Your task to perform on an android device: open a bookmark in the chrome app Image 0: 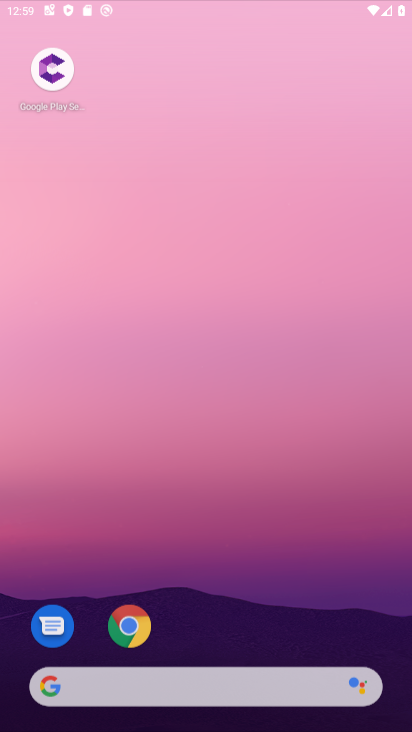
Step 0: press back button
Your task to perform on an android device: open a bookmark in the chrome app Image 1: 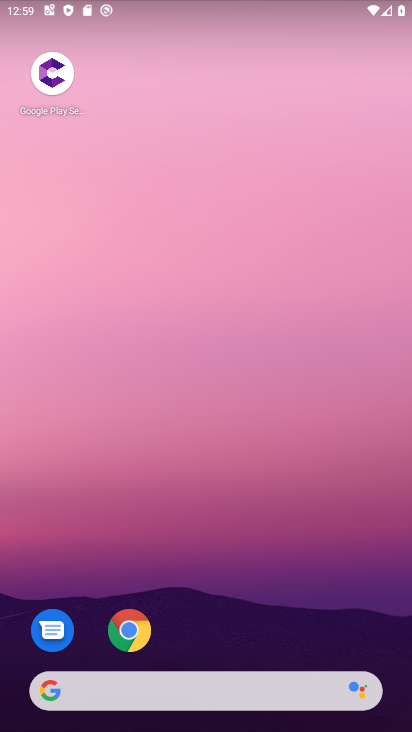
Step 1: drag from (231, 572) to (228, 209)
Your task to perform on an android device: open a bookmark in the chrome app Image 2: 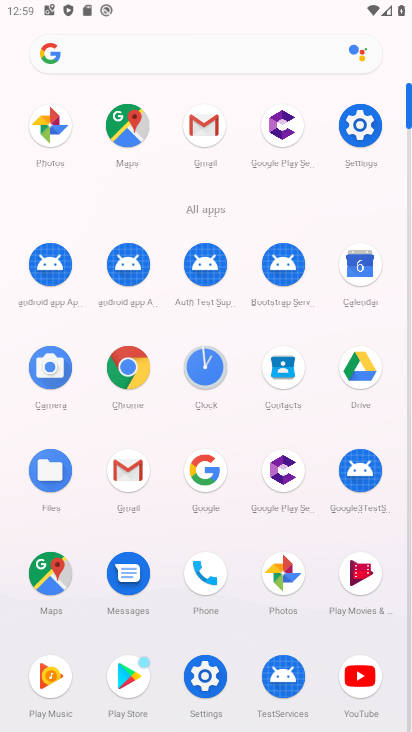
Step 2: click (124, 367)
Your task to perform on an android device: open a bookmark in the chrome app Image 3: 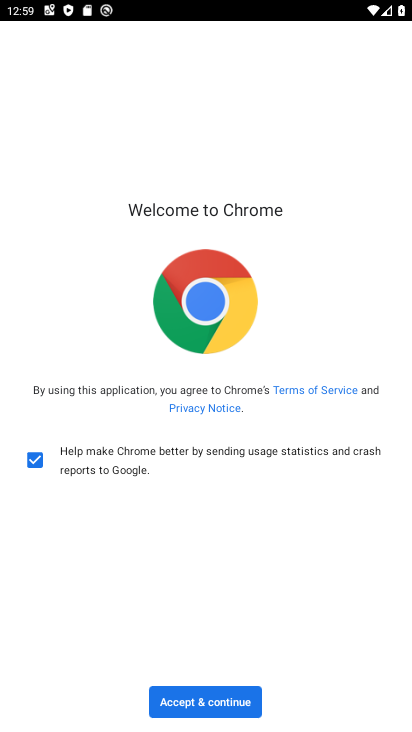
Step 3: click (224, 707)
Your task to perform on an android device: open a bookmark in the chrome app Image 4: 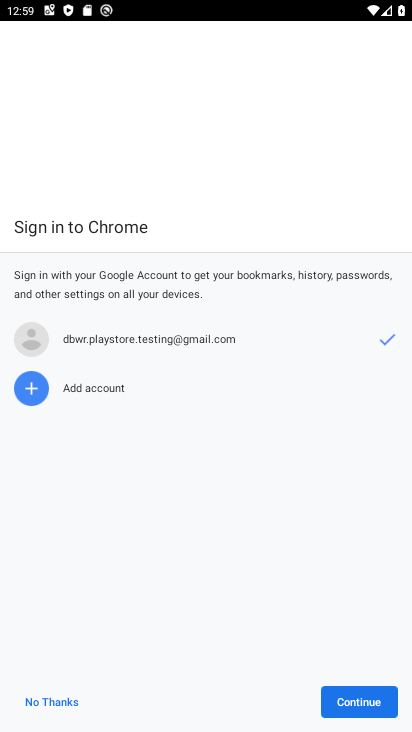
Step 4: click (354, 701)
Your task to perform on an android device: open a bookmark in the chrome app Image 5: 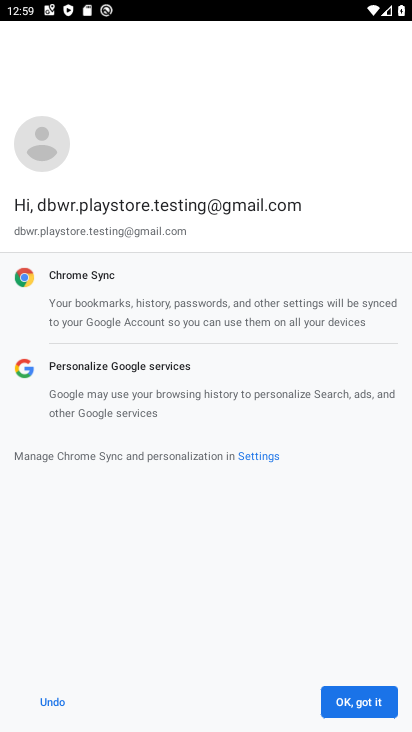
Step 5: click (372, 700)
Your task to perform on an android device: open a bookmark in the chrome app Image 6: 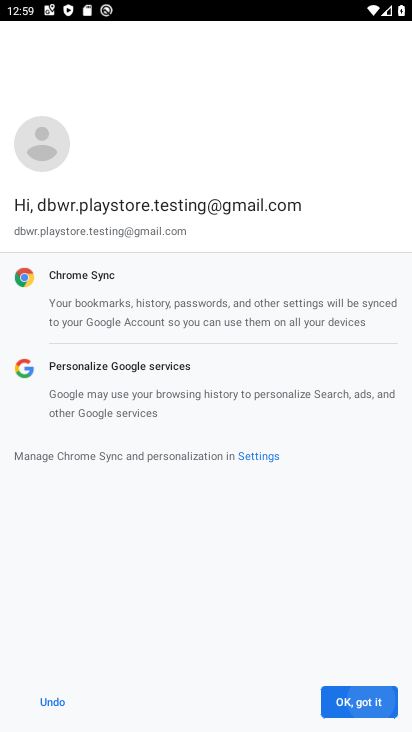
Step 6: click (372, 700)
Your task to perform on an android device: open a bookmark in the chrome app Image 7: 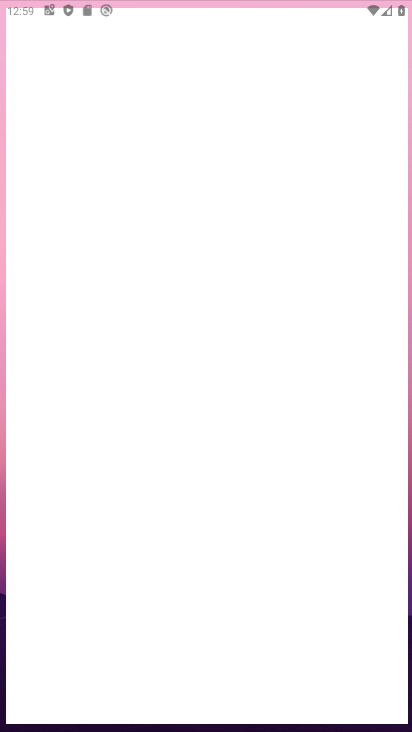
Step 7: click (371, 700)
Your task to perform on an android device: open a bookmark in the chrome app Image 8: 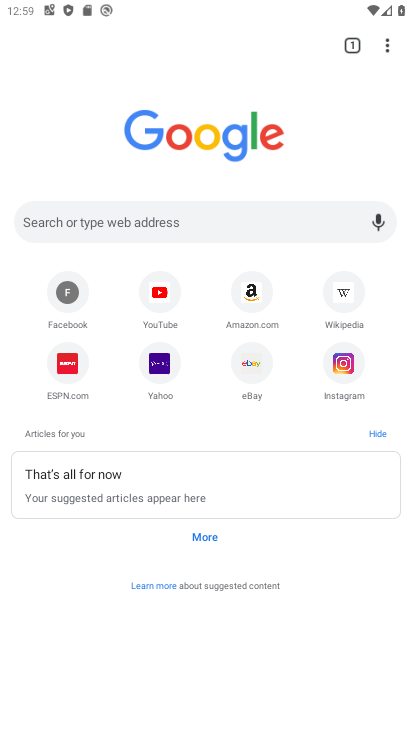
Step 8: click (388, 43)
Your task to perform on an android device: open a bookmark in the chrome app Image 9: 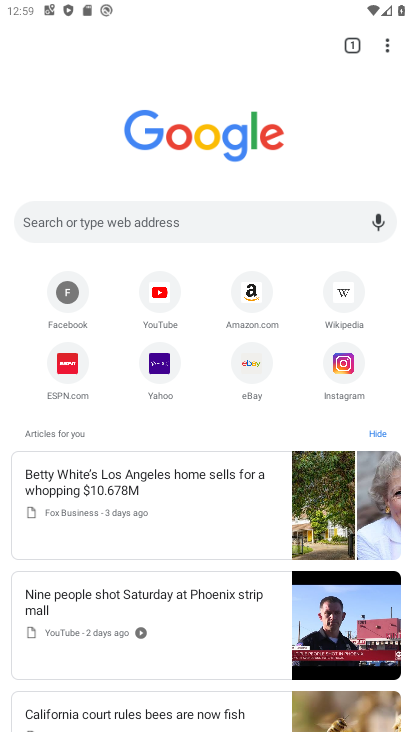
Step 9: click (53, 217)
Your task to perform on an android device: open a bookmark in the chrome app Image 10: 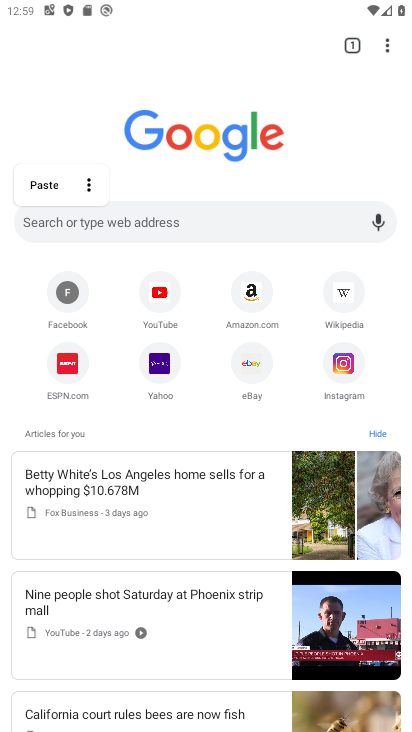
Step 10: click (334, 140)
Your task to perform on an android device: open a bookmark in the chrome app Image 11: 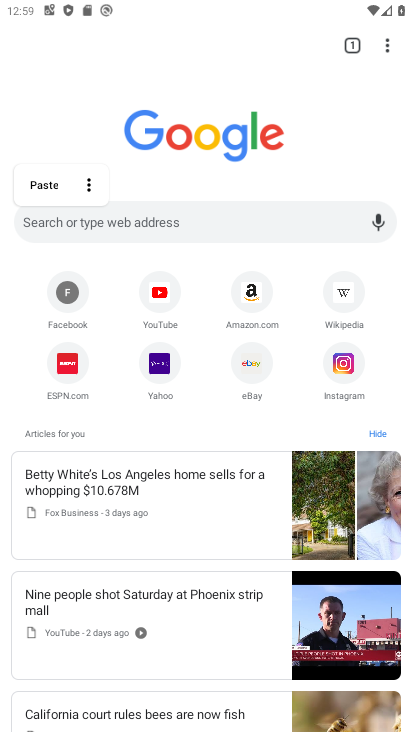
Step 11: click (387, 49)
Your task to perform on an android device: open a bookmark in the chrome app Image 12: 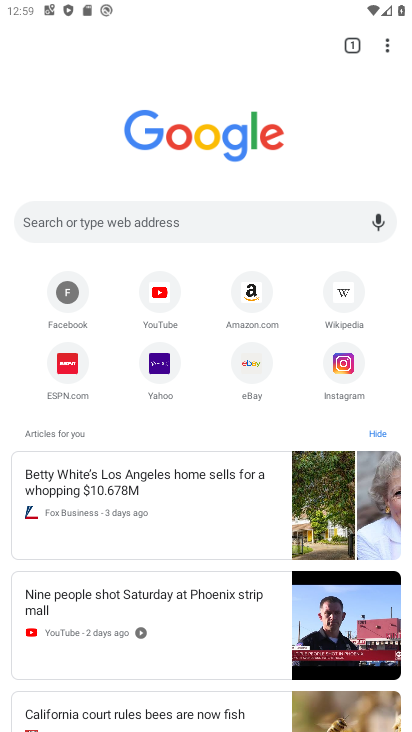
Step 12: drag from (384, 44) to (212, 173)
Your task to perform on an android device: open a bookmark in the chrome app Image 13: 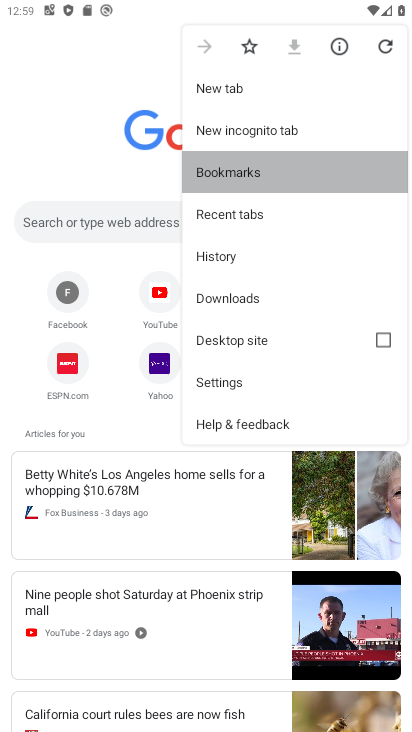
Step 13: click (212, 173)
Your task to perform on an android device: open a bookmark in the chrome app Image 14: 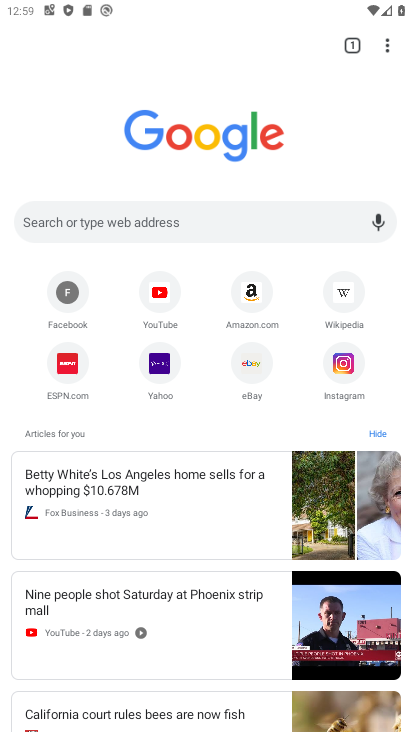
Step 14: click (213, 172)
Your task to perform on an android device: open a bookmark in the chrome app Image 15: 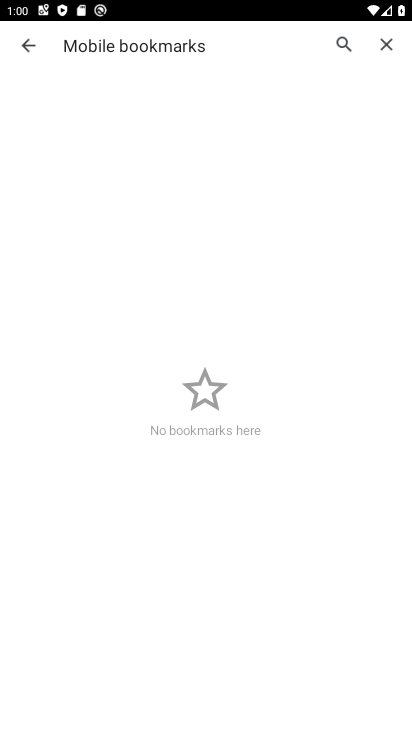
Step 15: task complete